Your task to perform on an android device: open a new tab in the chrome app Image 0: 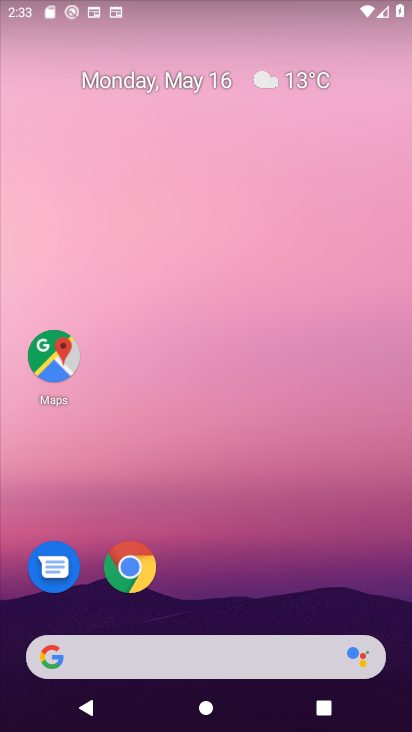
Step 0: click (125, 578)
Your task to perform on an android device: open a new tab in the chrome app Image 1: 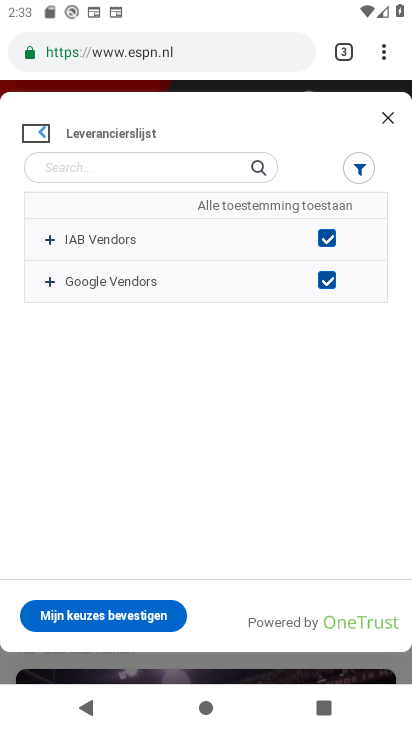
Step 1: click (359, 64)
Your task to perform on an android device: open a new tab in the chrome app Image 2: 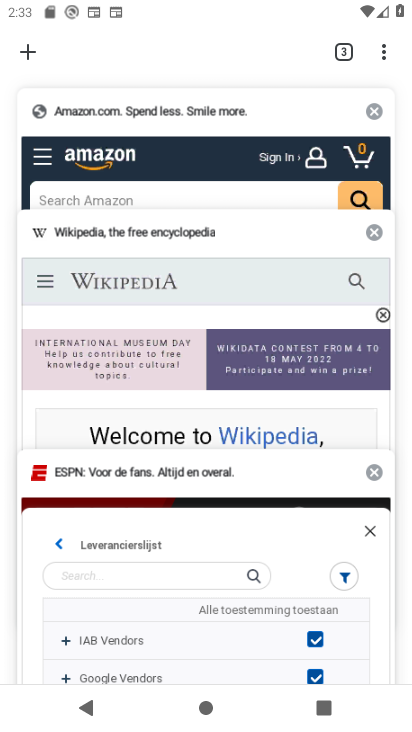
Step 2: click (27, 45)
Your task to perform on an android device: open a new tab in the chrome app Image 3: 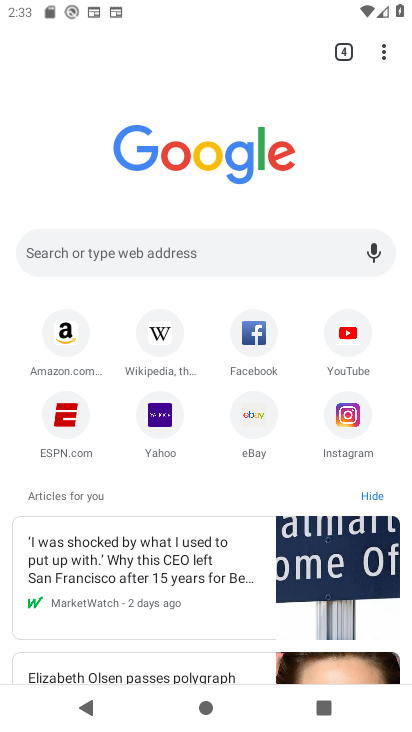
Step 3: task complete